Your task to perform on an android device: Toggle the flashlight Image 0: 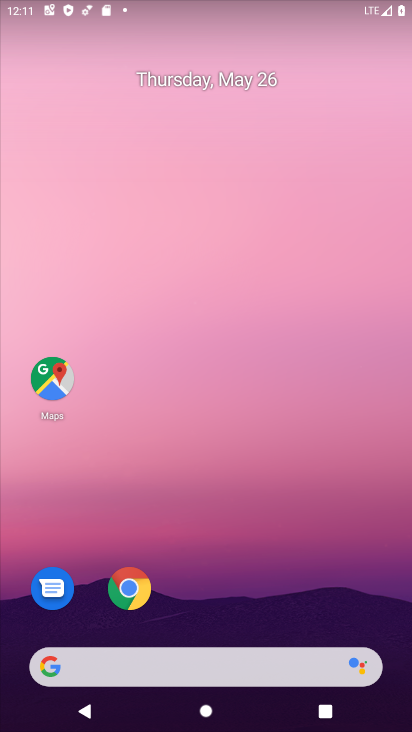
Step 0: drag from (254, 515) to (171, 23)
Your task to perform on an android device: Toggle the flashlight Image 1: 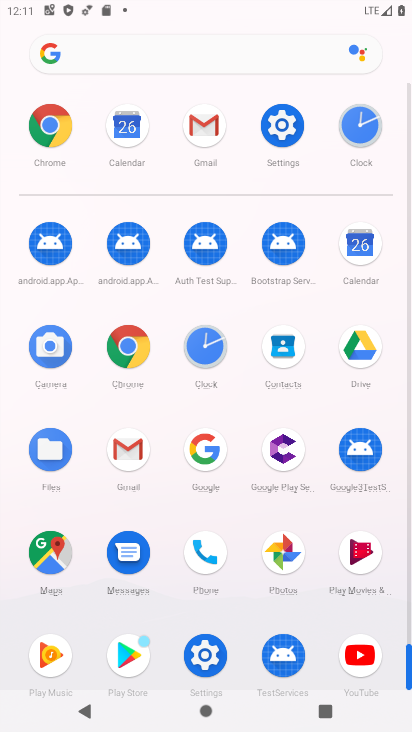
Step 1: drag from (11, 580) to (16, 224)
Your task to perform on an android device: Toggle the flashlight Image 2: 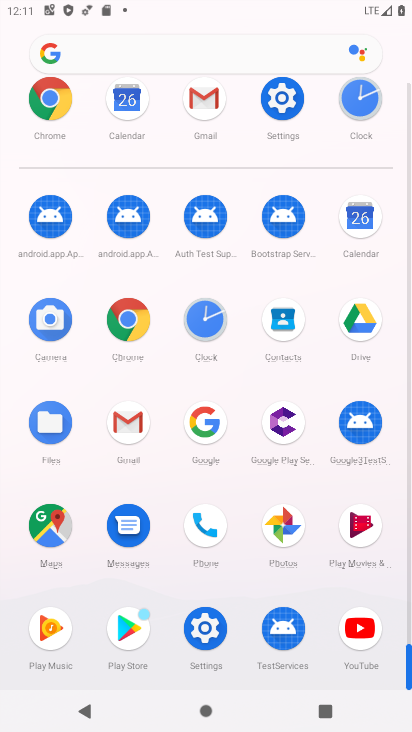
Step 2: click (203, 624)
Your task to perform on an android device: Toggle the flashlight Image 3: 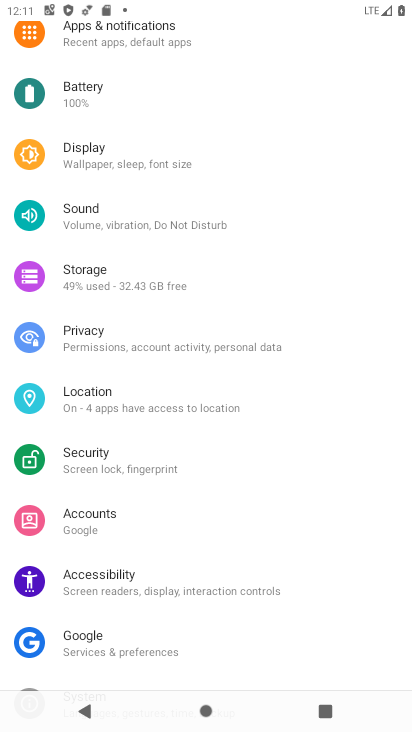
Step 3: drag from (250, 136) to (273, 646)
Your task to perform on an android device: Toggle the flashlight Image 4: 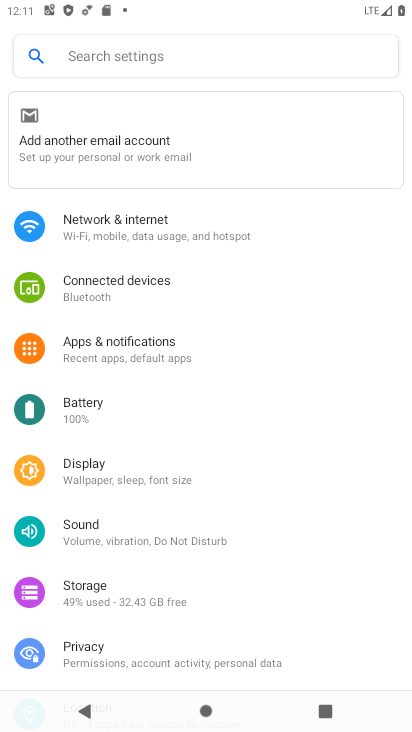
Step 4: click (164, 215)
Your task to perform on an android device: Toggle the flashlight Image 5: 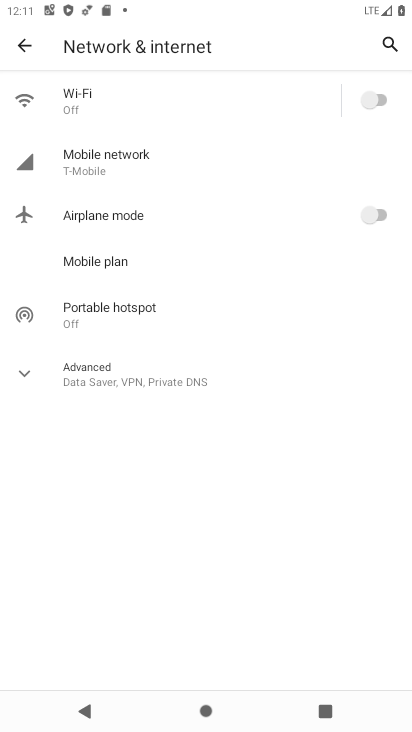
Step 5: click (40, 377)
Your task to perform on an android device: Toggle the flashlight Image 6: 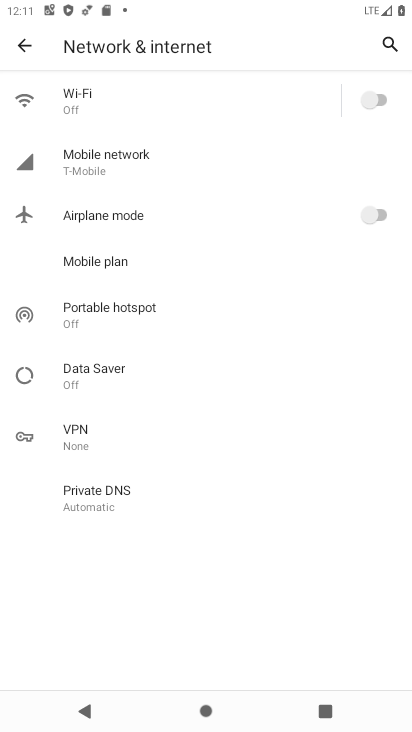
Step 6: task complete